Your task to perform on an android device: What is the speed of a rocket? Image 0: 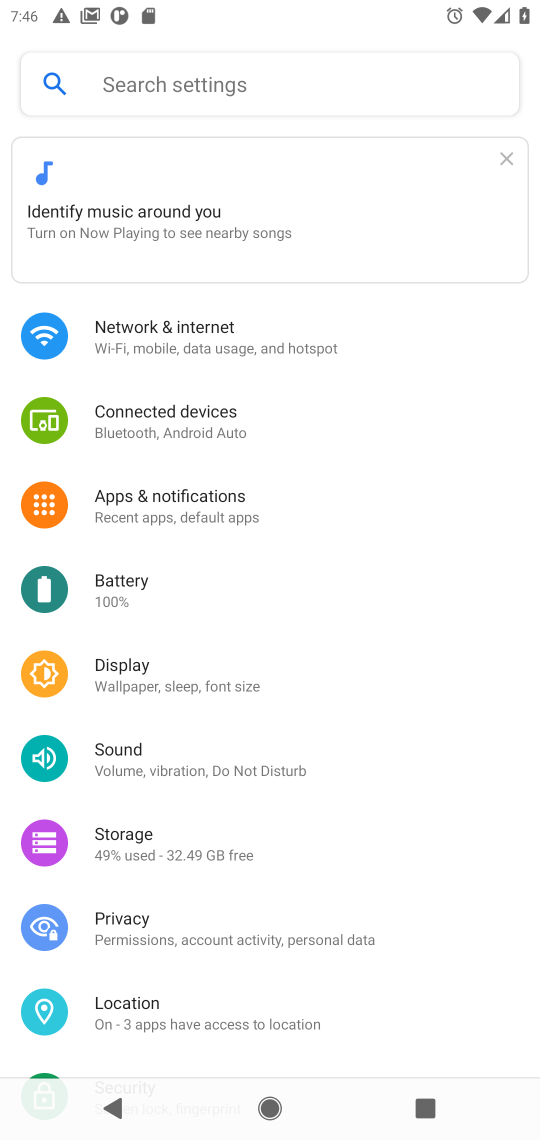
Step 0: press home button
Your task to perform on an android device: What is the speed of a rocket? Image 1: 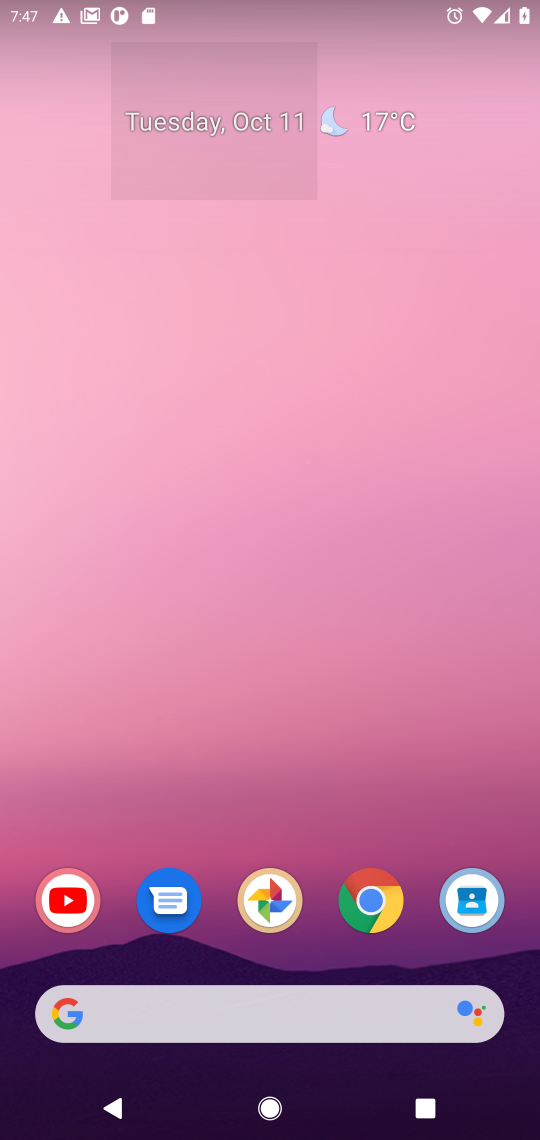
Step 1: click (374, 907)
Your task to perform on an android device: What is the speed of a rocket? Image 2: 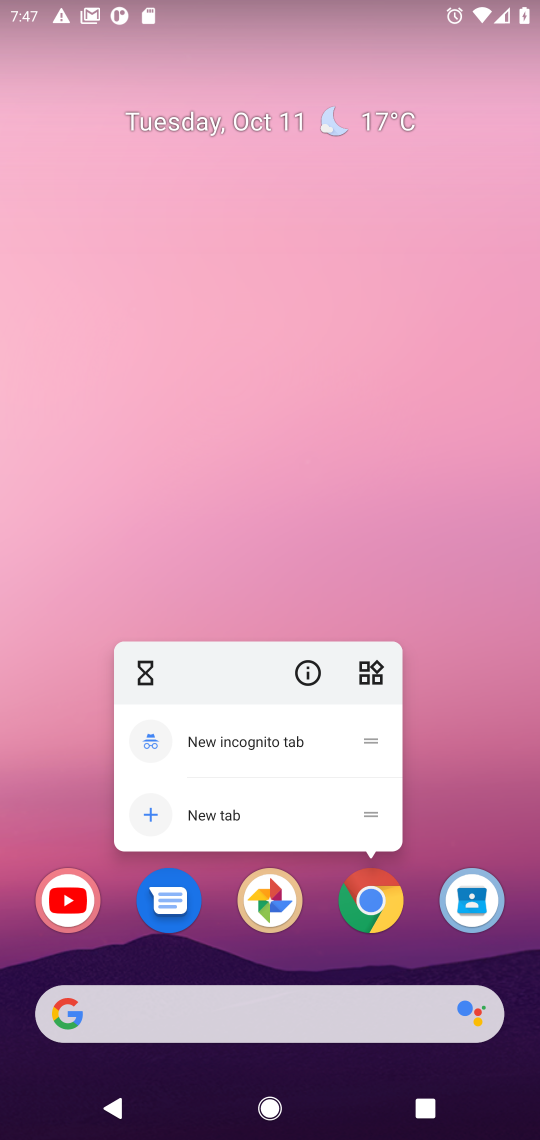
Step 2: click (369, 905)
Your task to perform on an android device: What is the speed of a rocket? Image 3: 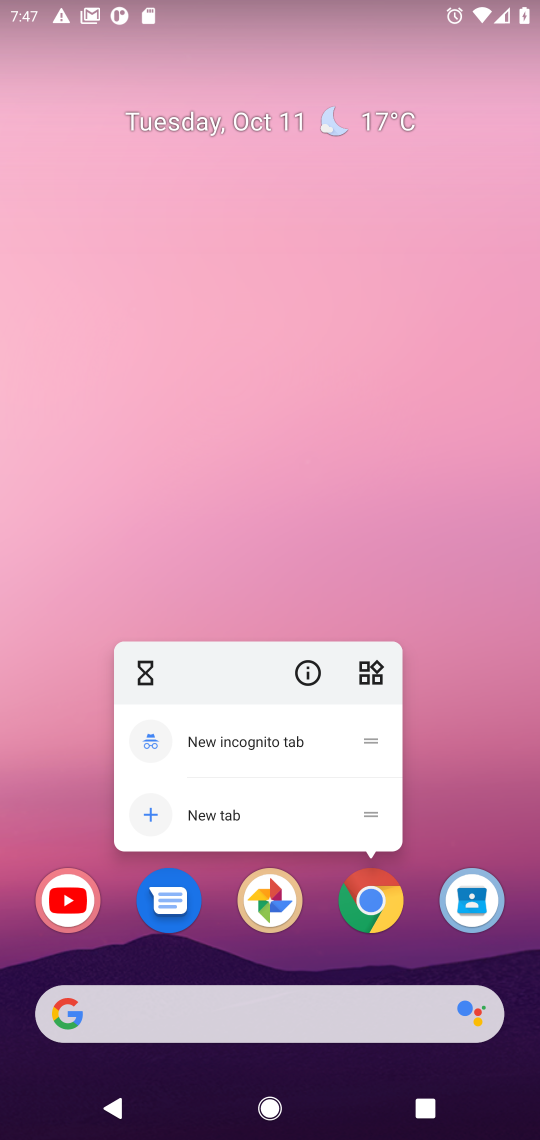
Step 3: click (369, 907)
Your task to perform on an android device: What is the speed of a rocket? Image 4: 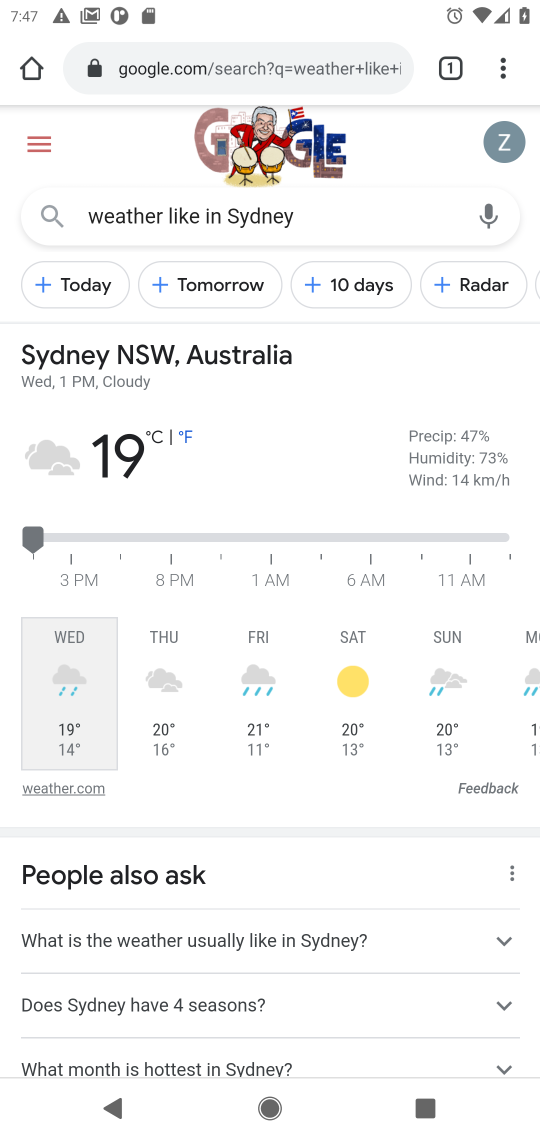
Step 4: click (280, 61)
Your task to perform on an android device: What is the speed of a rocket? Image 5: 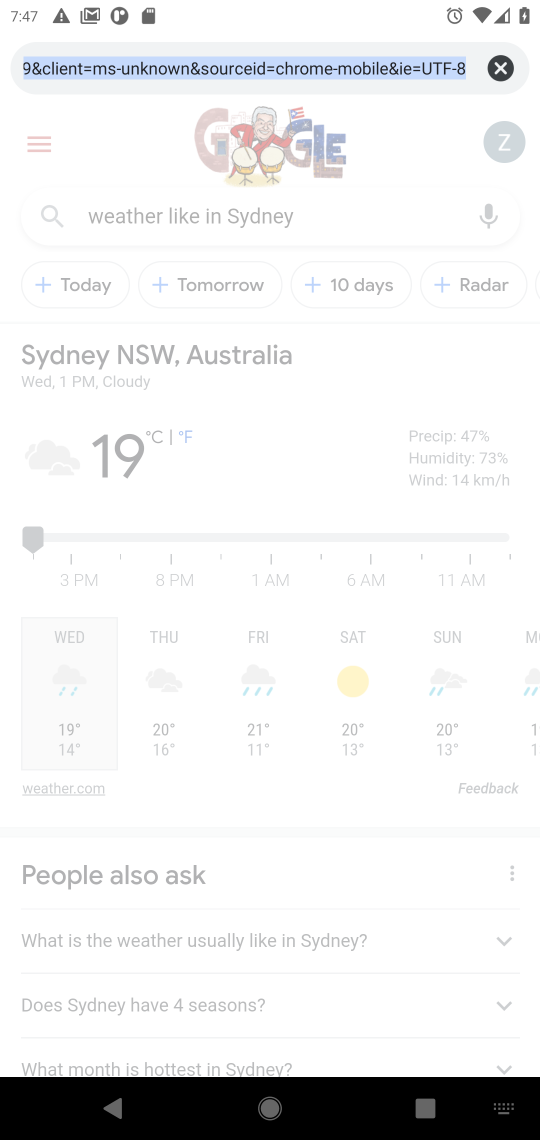
Step 5: click (502, 72)
Your task to perform on an android device: What is the speed of a rocket? Image 6: 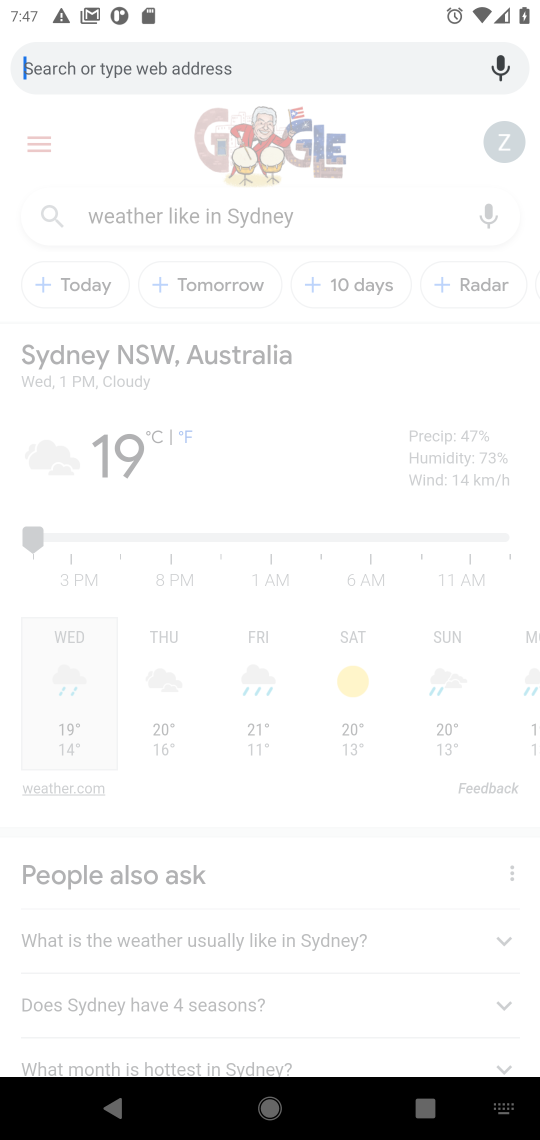
Step 6: type "What is the speed of a rocket"
Your task to perform on an android device: What is the speed of a rocket? Image 7: 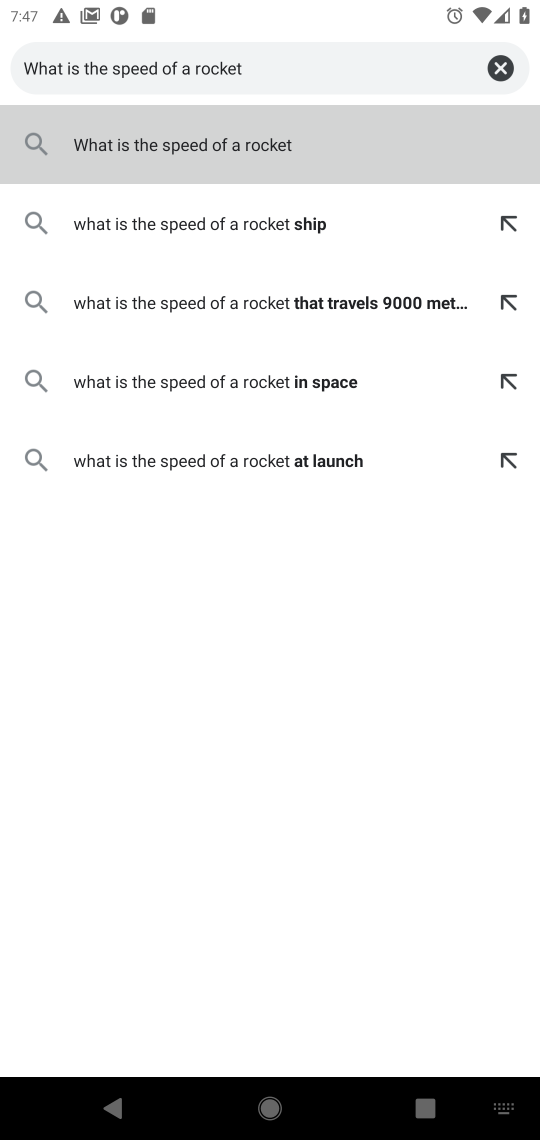
Step 7: press enter
Your task to perform on an android device: What is the speed of a rocket? Image 8: 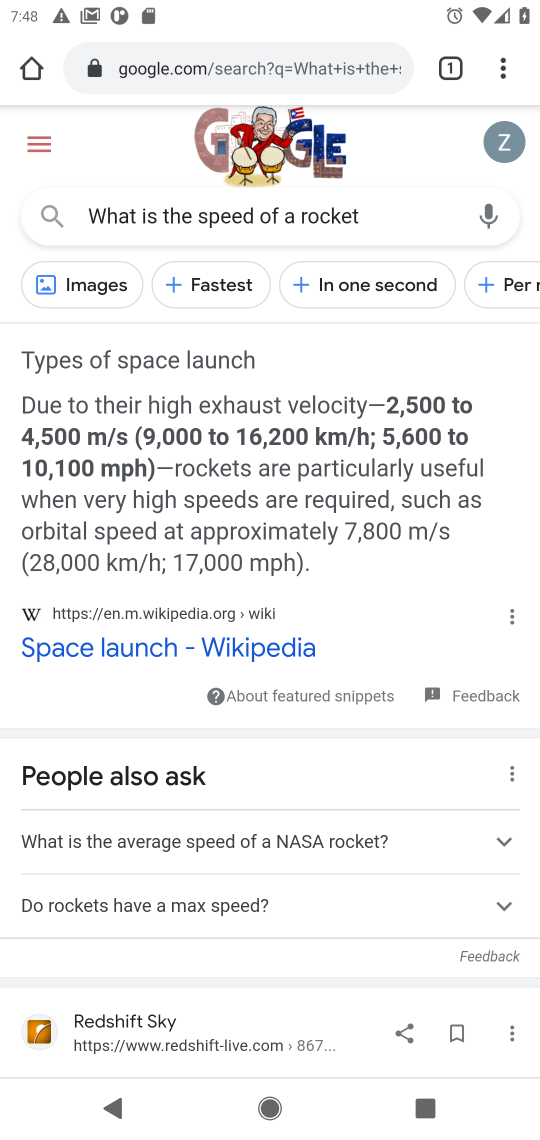
Step 8: task complete